Your task to perform on an android device: Open the Play Movies app and select the watchlist tab. Image 0: 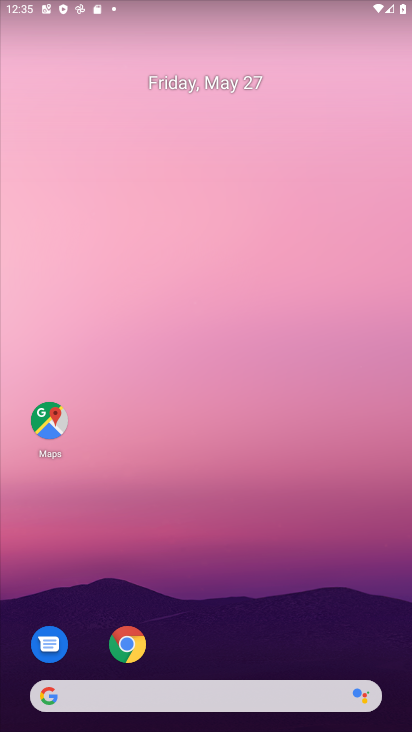
Step 0: drag from (340, 549) to (315, 46)
Your task to perform on an android device: Open the Play Movies app and select the watchlist tab. Image 1: 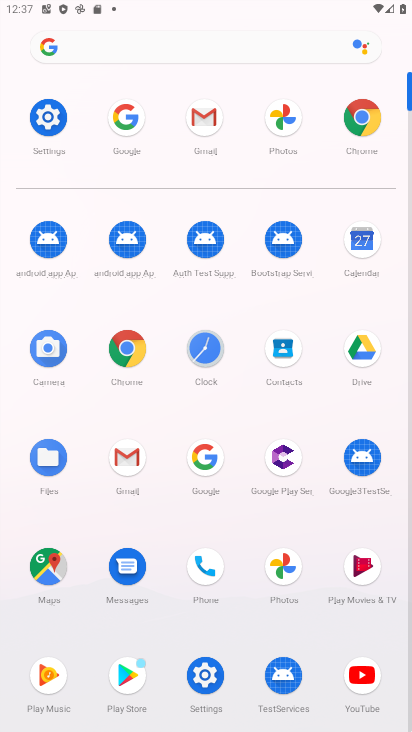
Step 1: click (361, 563)
Your task to perform on an android device: Open the Play Movies app and select the watchlist tab. Image 2: 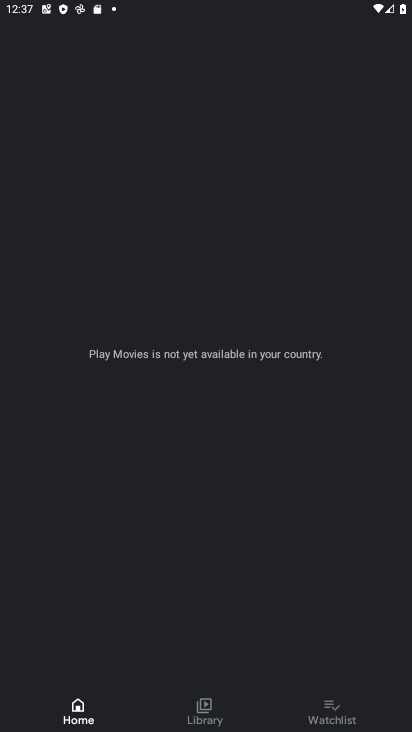
Step 2: click (335, 704)
Your task to perform on an android device: Open the Play Movies app and select the watchlist tab. Image 3: 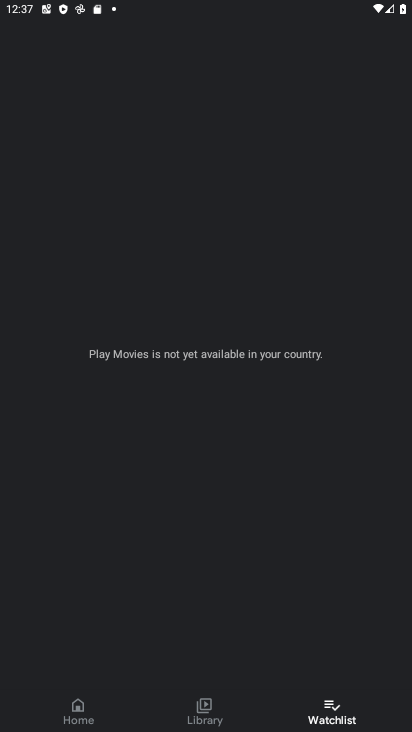
Step 3: task complete